Your task to perform on an android device: Go to network settings Image 0: 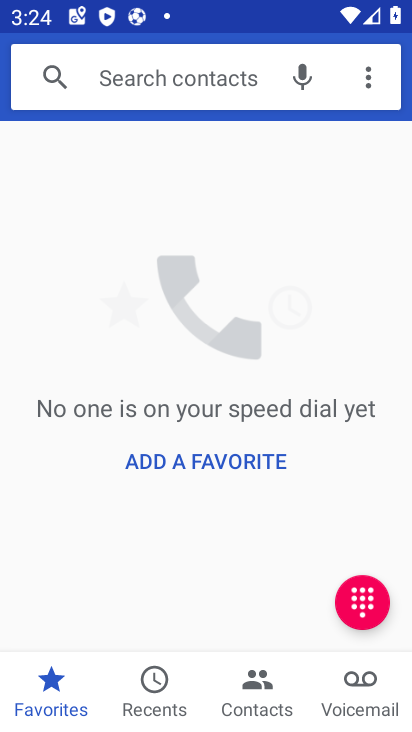
Step 0: press home button
Your task to perform on an android device: Go to network settings Image 1: 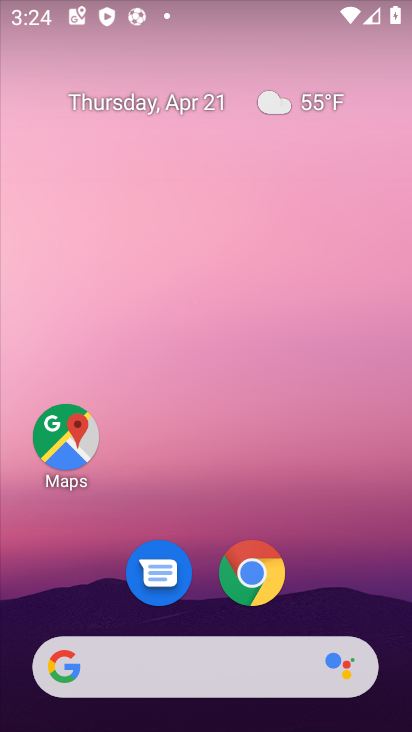
Step 1: drag from (348, 584) to (305, 268)
Your task to perform on an android device: Go to network settings Image 2: 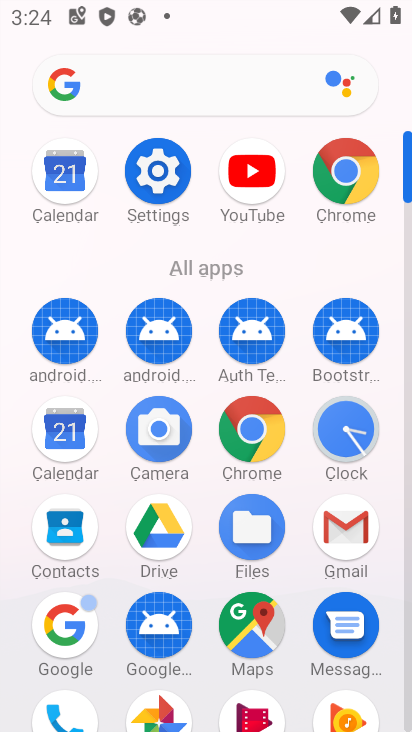
Step 2: click (405, 691)
Your task to perform on an android device: Go to network settings Image 3: 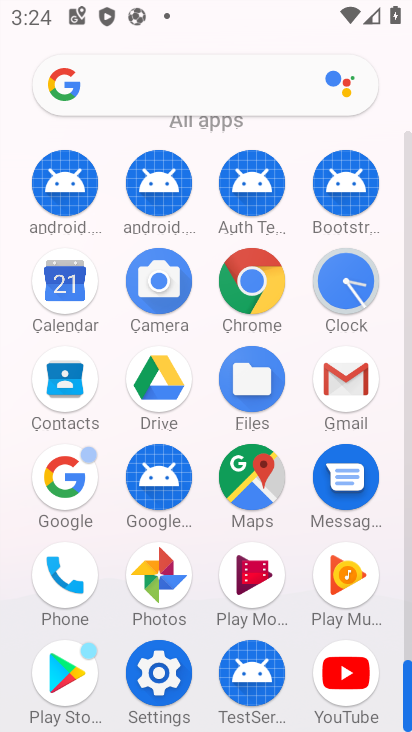
Step 3: click (159, 672)
Your task to perform on an android device: Go to network settings Image 4: 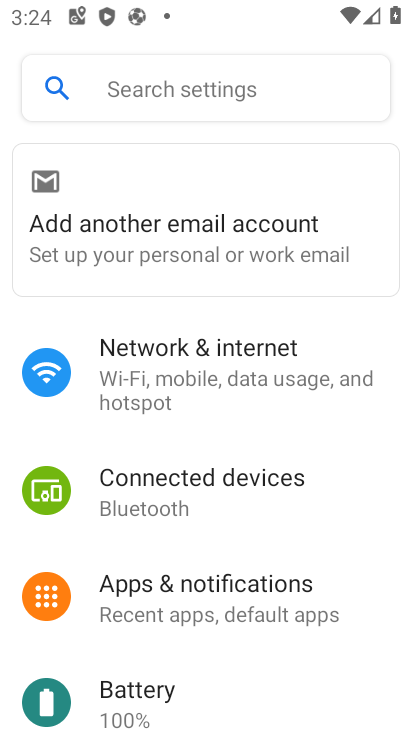
Step 4: click (163, 364)
Your task to perform on an android device: Go to network settings Image 5: 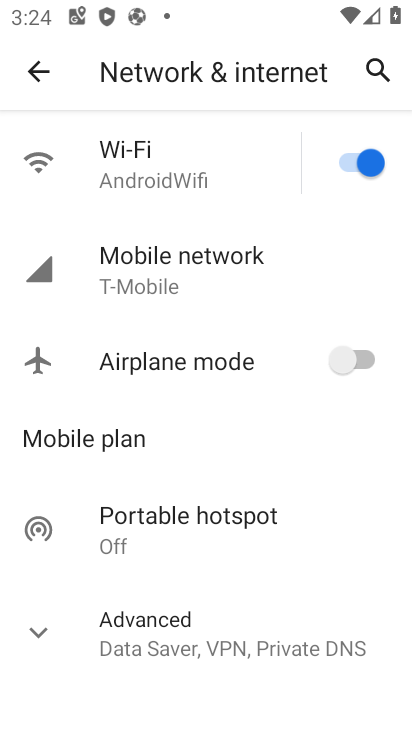
Step 5: click (159, 265)
Your task to perform on an android device: Go to network settings Image 6: 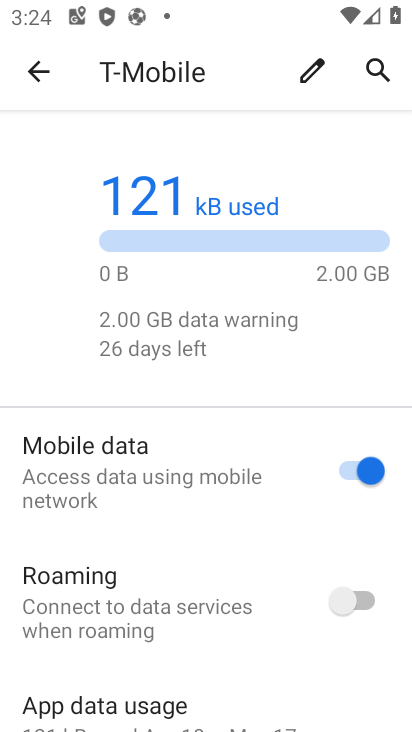
Step 6: task complete